Your task to perform on an android device: toggle priority inbox in the gmail app Image 0: 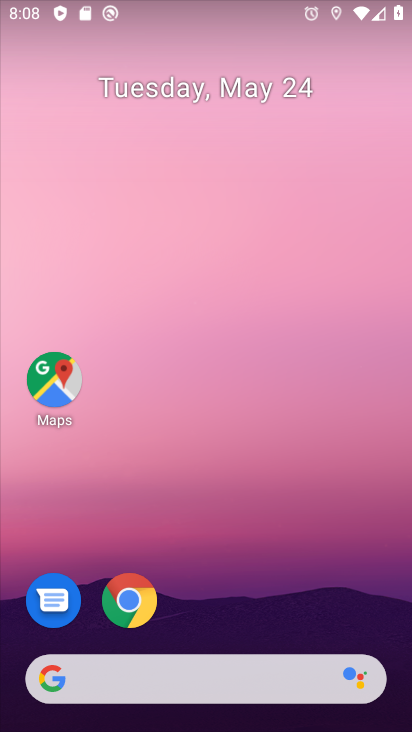
Step 0: drag from (220, 728) to (235, 186)
Your task to perform on an android device: toggle priority inbox in the gmail app Image 1: 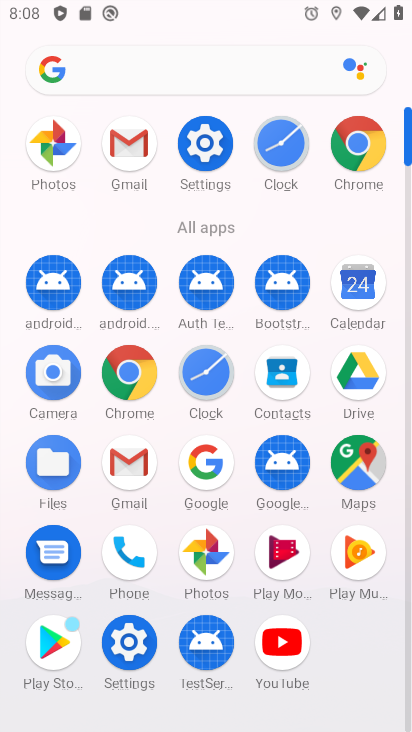
Step 1: click (135, 459)
Your task to perform on an android device: toggle priority inbox in the gmail app Image 2: 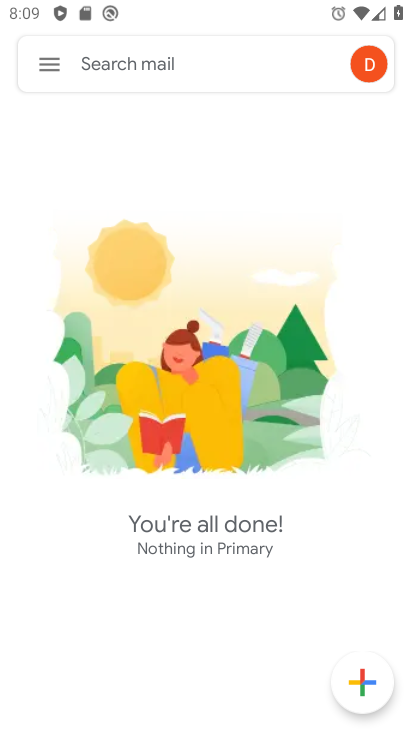
Step 2: click (46, 68)
Your task to perform on an android device: toggle priority inbox in the gmail app Image 3: 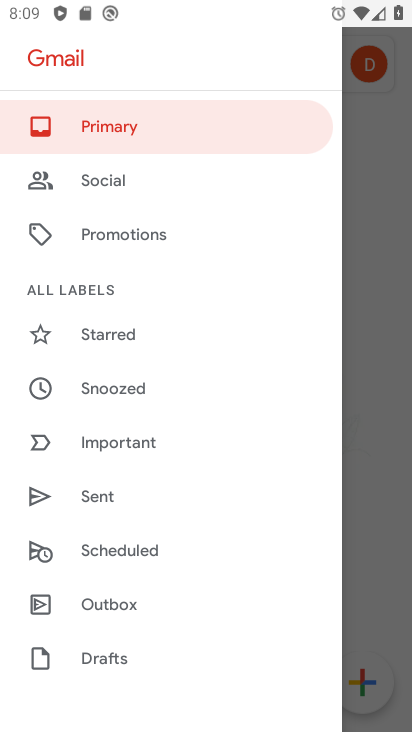
Step 3: drag from (116, 581) to (123, 209)
Your task to perform on an android device: toggle priority inbox in the gmail app Image 4: 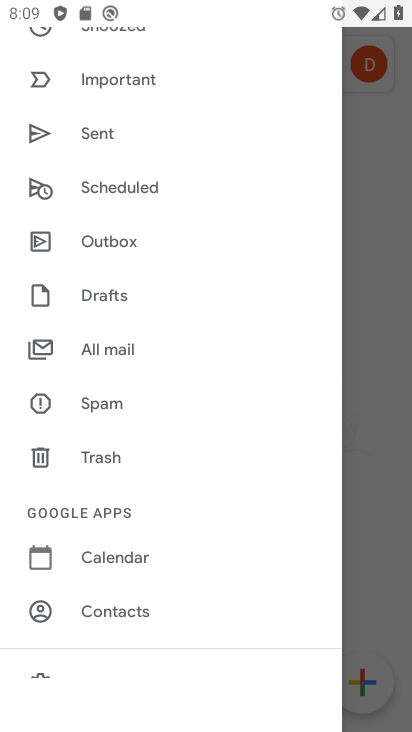
Step 4: drag from (83, 633) to (61, 226)
Your task to perform on an android device: toggle priority inbox in the gmail app Image 5: 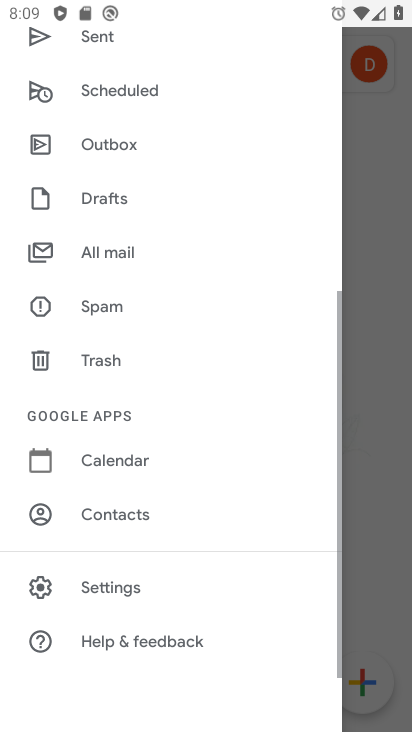
Step 5: click (109, 589)
Your task to perform on an android device: toggle priority inbox in the gmail app Image 6: 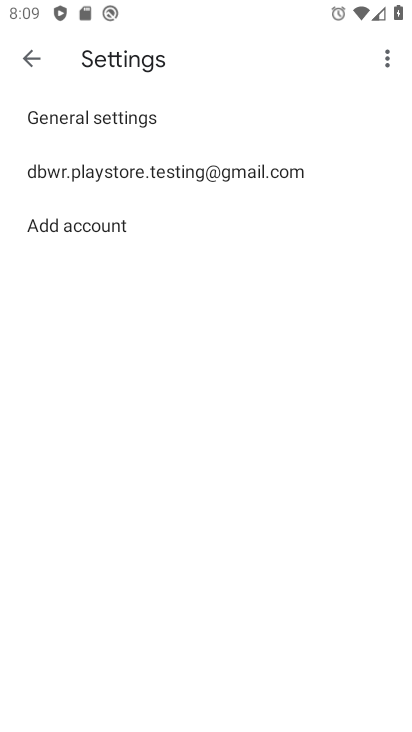
Step 6: click (136, 165)
Your task to perform on an android device: toggle priority inbox in the gmail app Image 7: 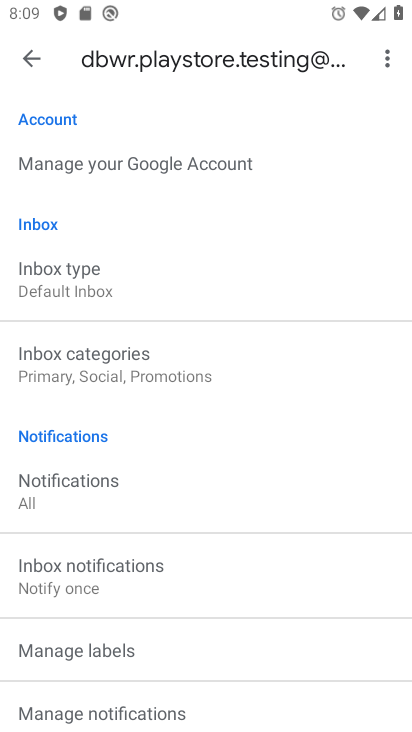
Step 7: click (58, 288)
Your task to perform on an android device: toggle priority inbox in the gmail app Image 8: 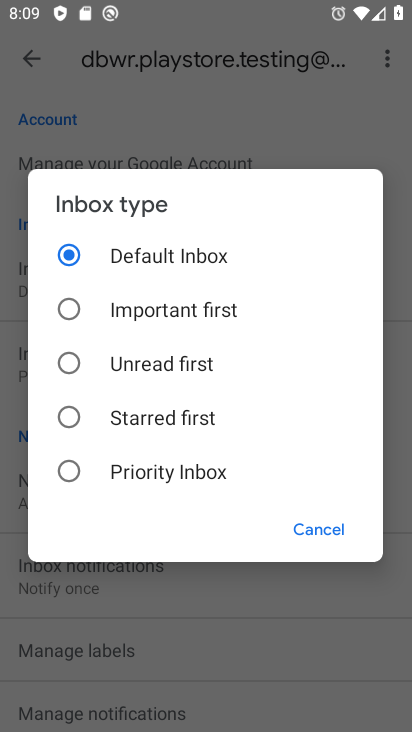
Step 8: click (66, 463)
Your task to perform on an android device: toggle priority inbox in the gmail app Image 9: 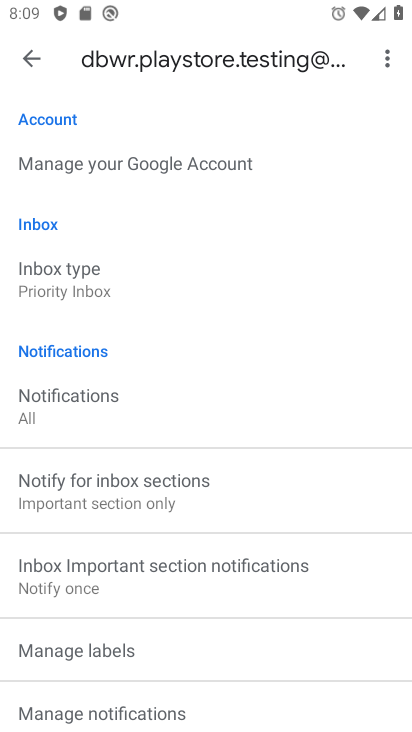
Step 9: task complete